Your task to perform on an android device: Open Yahoo.com Image 0: 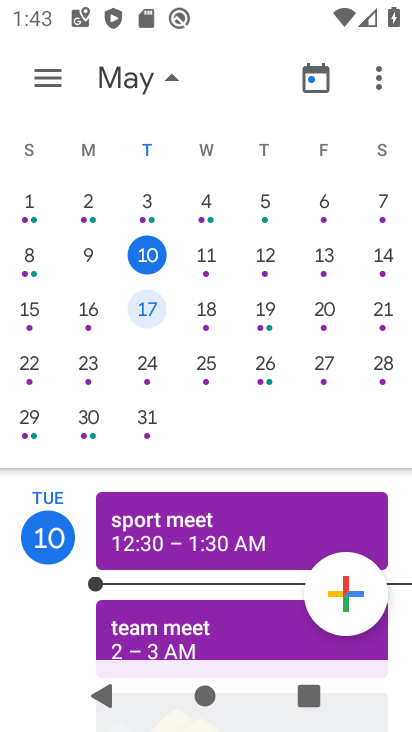
Step 0: press home button
Your task to perform on an android device: Open Yahoo.com Image 1: 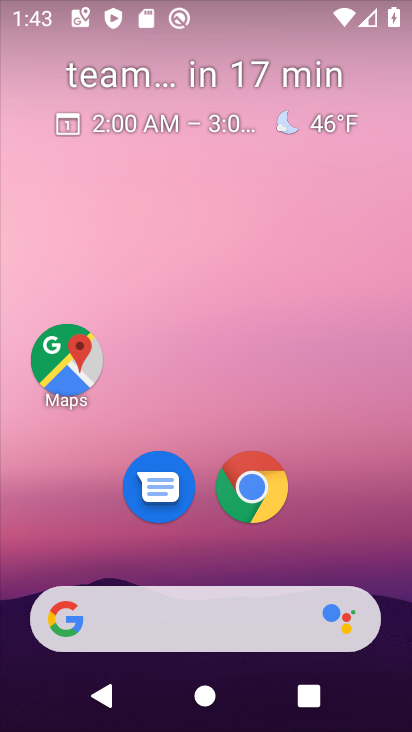
Step 1: click (259, 483)
Your task to perform on an android device: Open Yahoo.com Image 2: 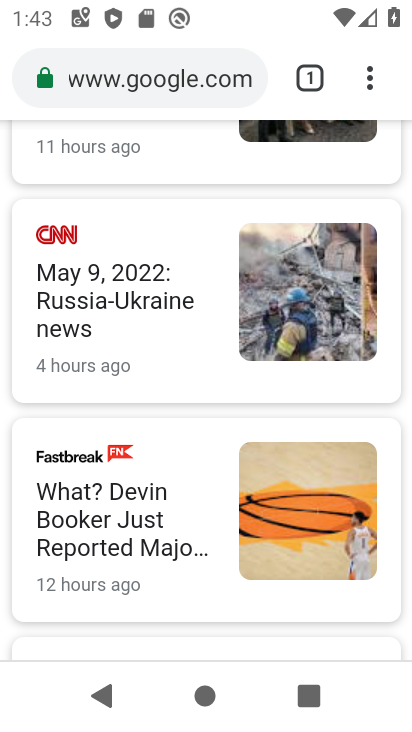
Step 2: click (185, 88)
Your task to perform on an android device: Open Yahoo.com Image 3: 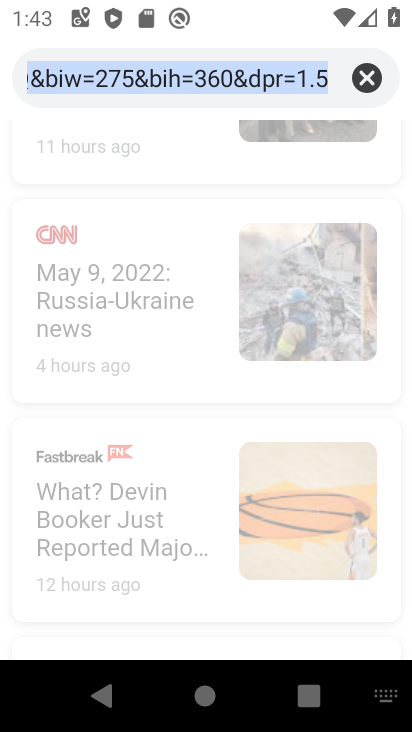
Step 3: type "yahoo.com"
Your task to perform on an android device: Open Yahoo.com Image 4: 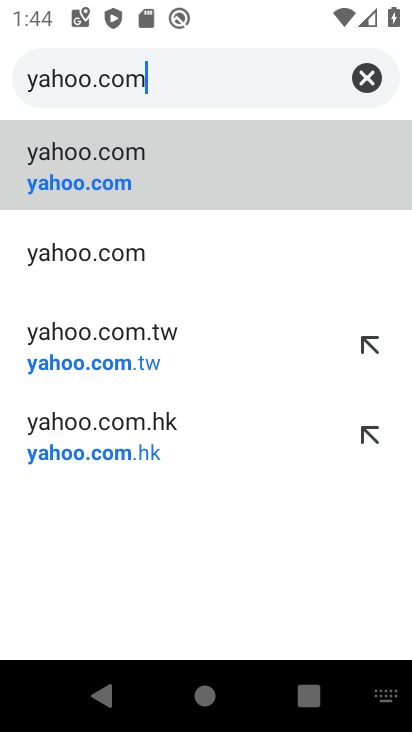
Step 4: click (73, 176)
Your task to perform on an android device: Open Yahoo.com Image 5: 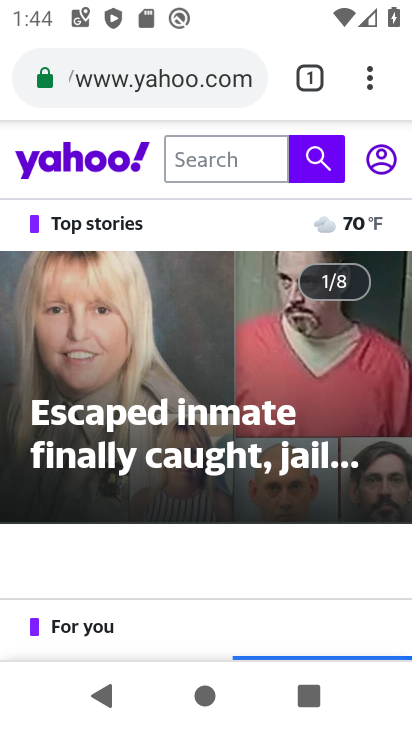
Step 5: task complete